Your task to perform on an android device: change alarm snooze length Image 0: 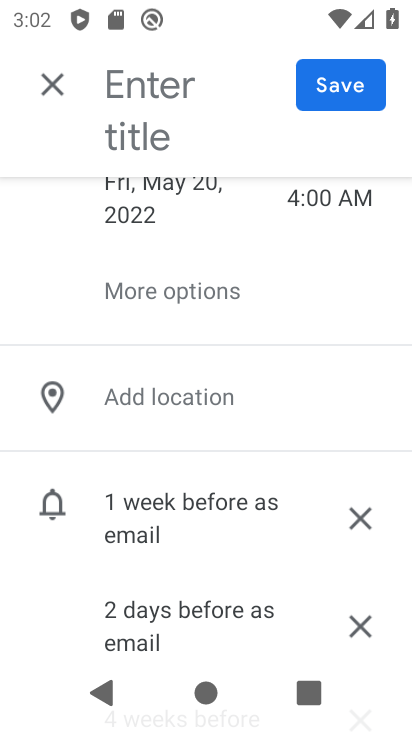
Step 0: press home button
Your task to perform on an android device: change alarm snooze length Image 1: 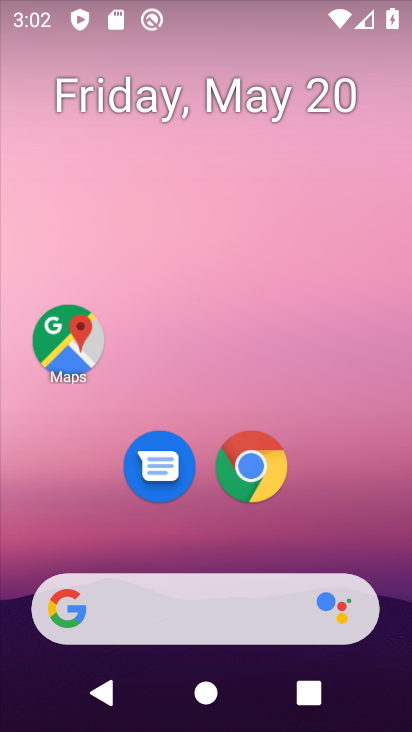
Step 1: drag from (199, 568) to (178, 173)
Your task to perform on an android device: change alarm snooze length Image 2: 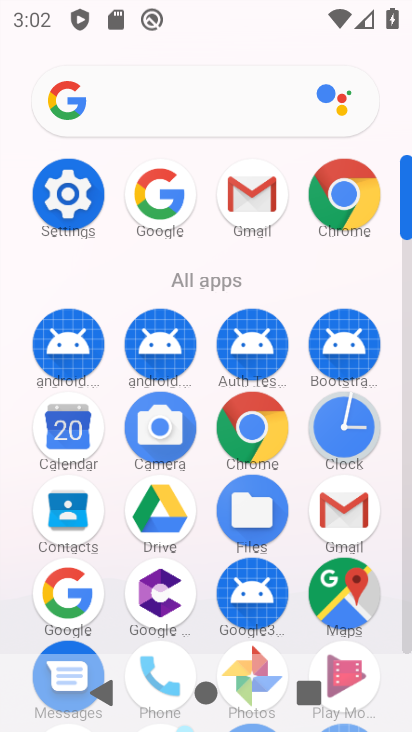
Step 2: click (336, 446)
Your task to perform on an android device: change alarm snooze length Image 3: 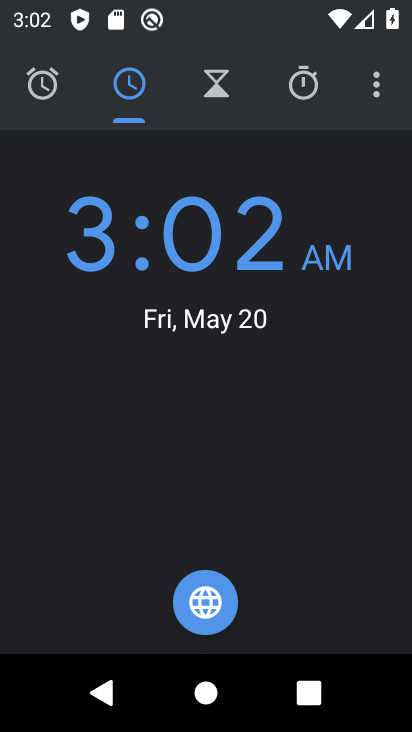
Step 3: click (374, 77)
Your task to perform on an android device: change alarm snooze length Image 4: 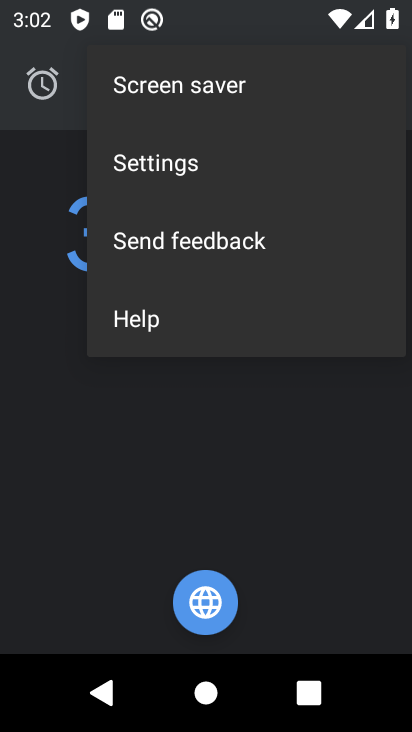
Step 4: click (161, 163)
Your task to perform on an android device: change alarm snooze length Image 5: 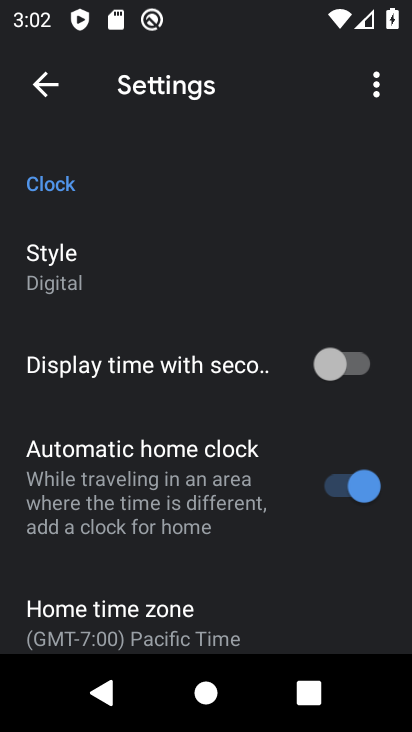
Step 5: drag from (86, 520) to (127, 210)
Your task to perform on an android device: change alarm snooze length Image 6: 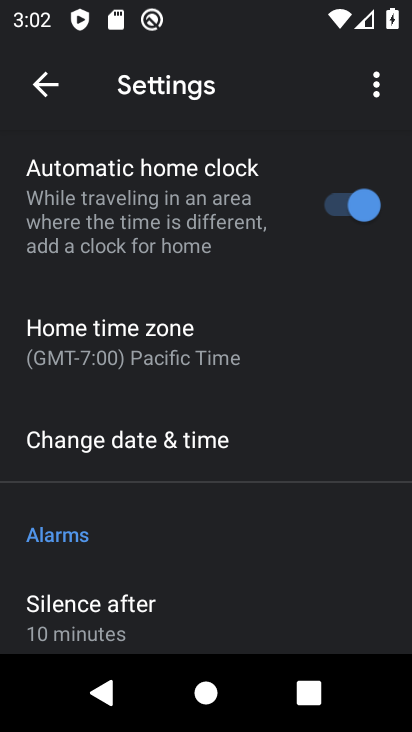
Step 6: drag from (105, 631) to (130, 231)
Your task to perform on an android device: change alarm snooze length Image 7: 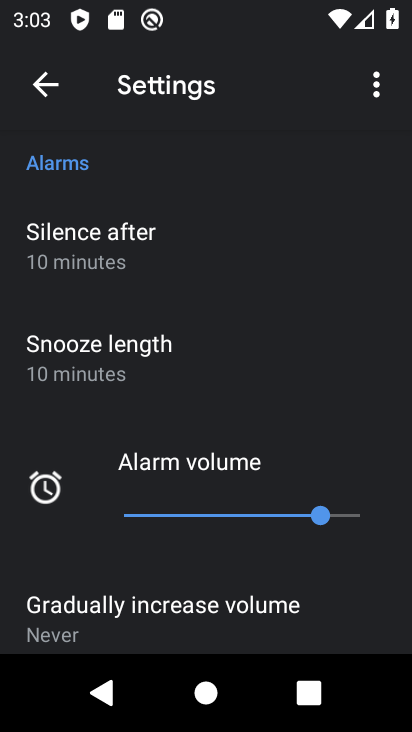
Step 7: click (121, 362)
Your task to perform on an android device: change alarm snooze length Image 8: 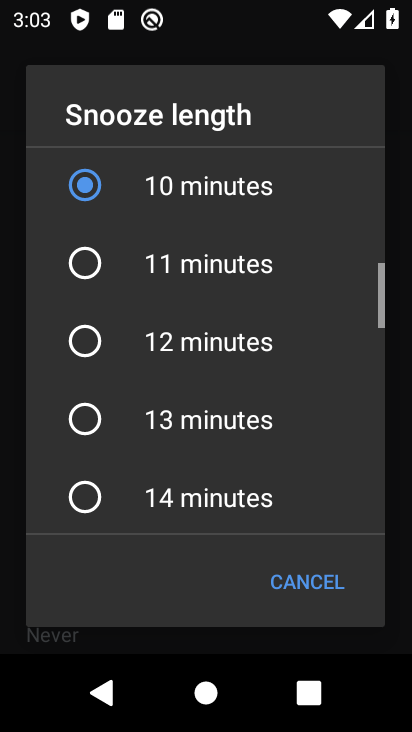
Step 8: click (168, 244)
Your task to perform on an android device: change alarm snooze length Image 9: 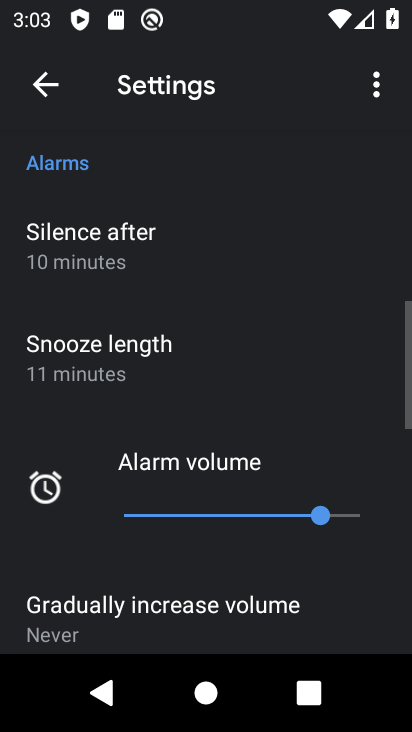
Step 9: task complete